Your task to perform on an android device: install app "Google Drive" Image 0: 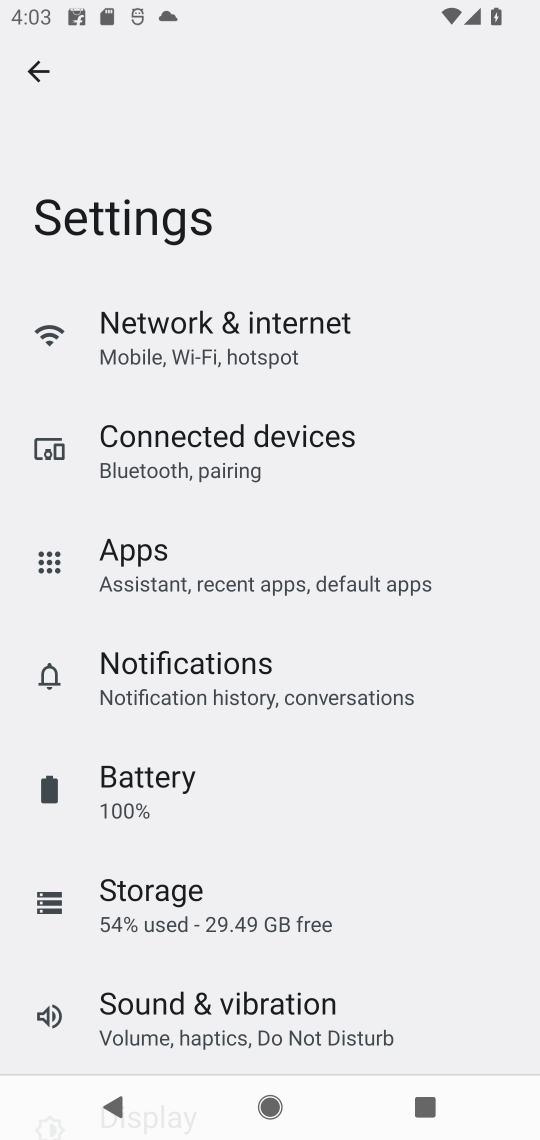
Step 0: press home button
Your task to perform on an android device: install app "Google Drive" Image 1: 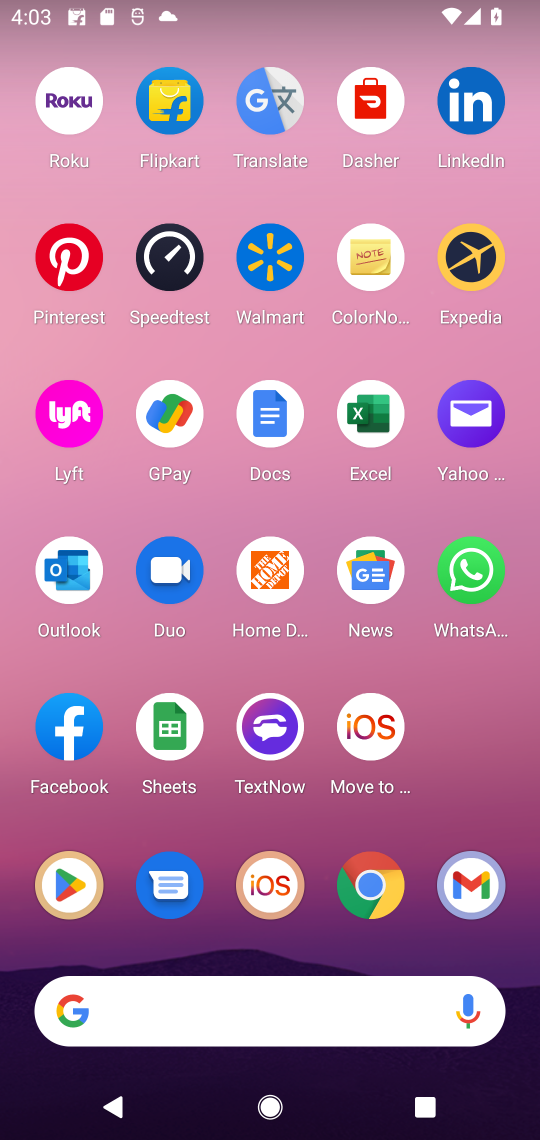
Step 1: click (80, 893)
Your task to perform on an android device: install app "Google Drive" Image 2: 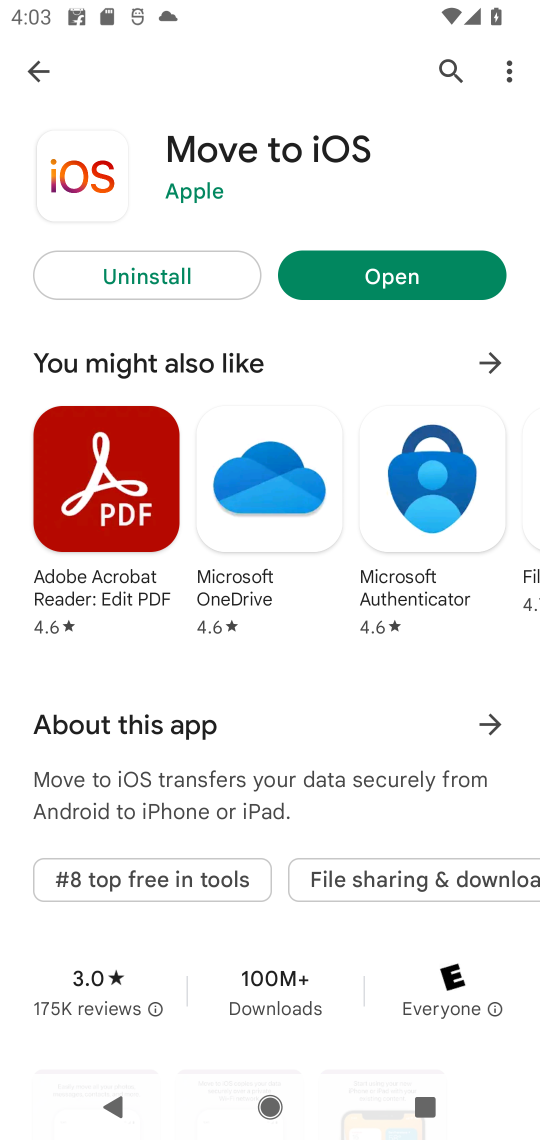
Step 2: click (456, 72)
Your task to perform on an android device: install app "Google Drive" Image 3: 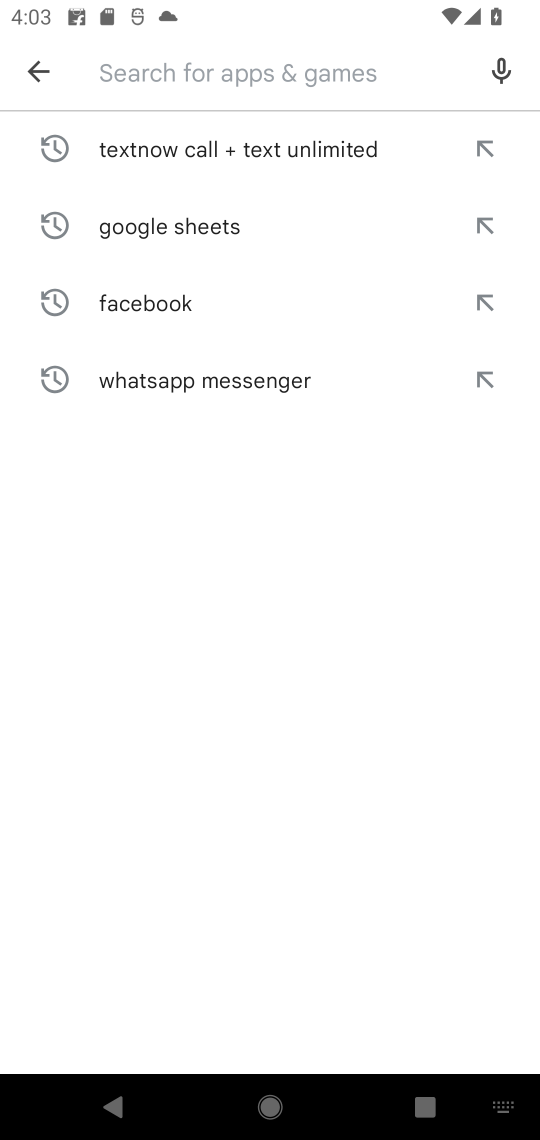
Step 3: type "Google Drive"
Your task to perform on an android device: install app "Google Drive" Image 4: 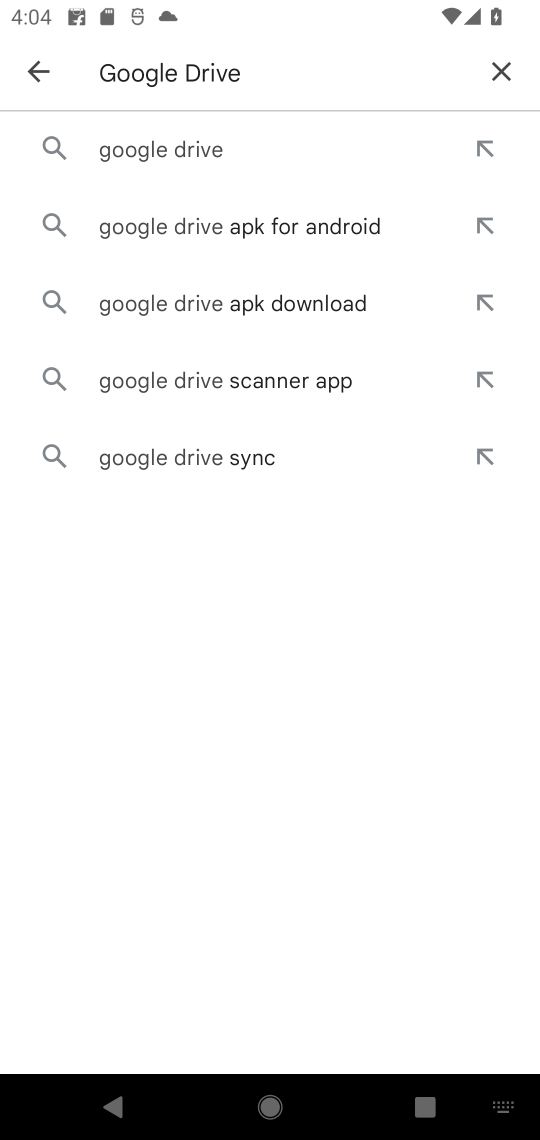
Step 4: click (166, 153)
Your task to perform on an android device: install app "Google Drive" Image 5: 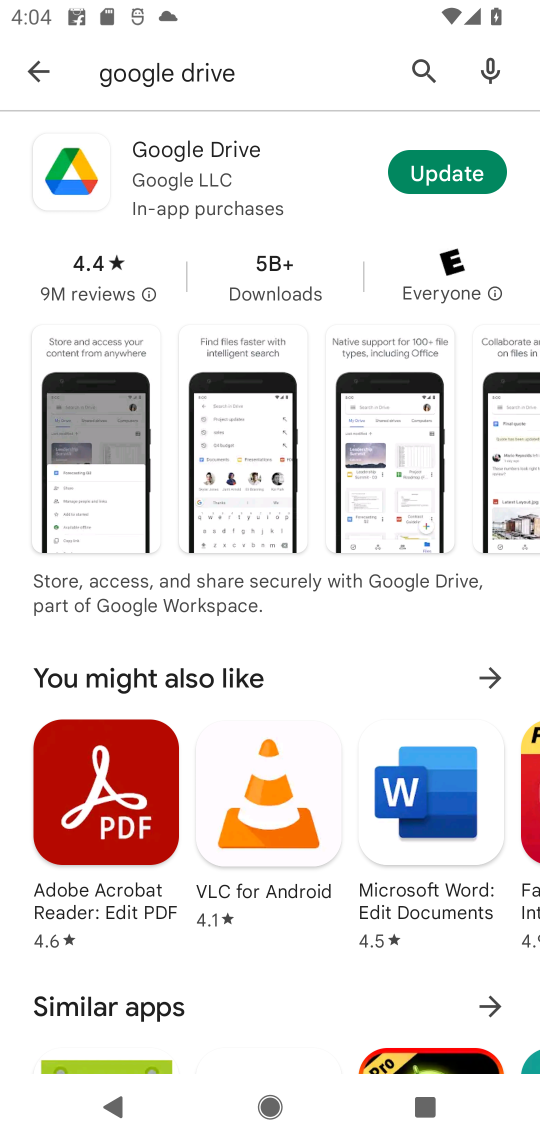
Step 5: click (203, 141)
Your task to perform on an android device: install app "Google Drive" Image 6: 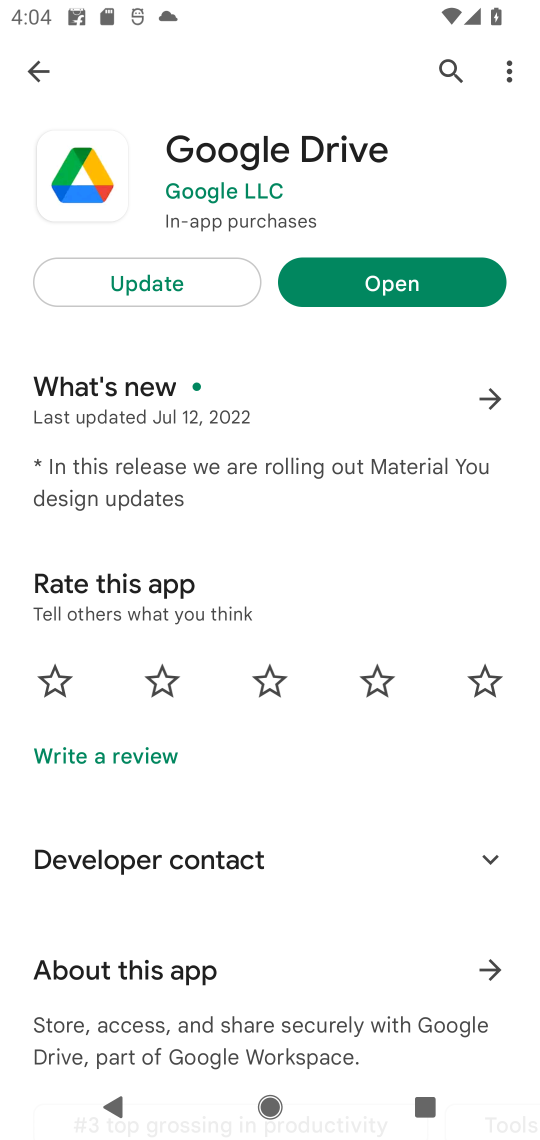
Step 6: task complete